Your task to perform on an android device: Open ESPN.com Image 0: 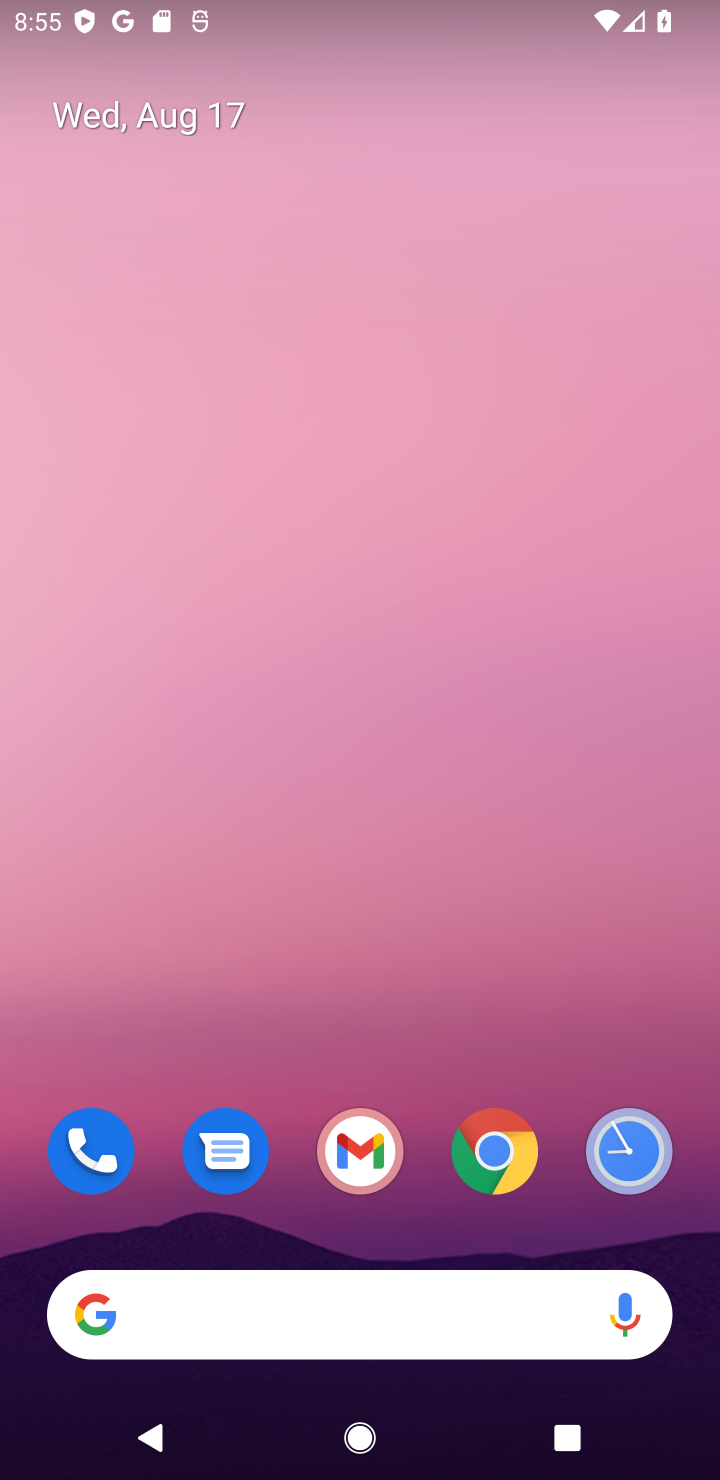
Step 0: click (482, 1149)
Your task to perform on an android device: Open ESPN.com Image 1: 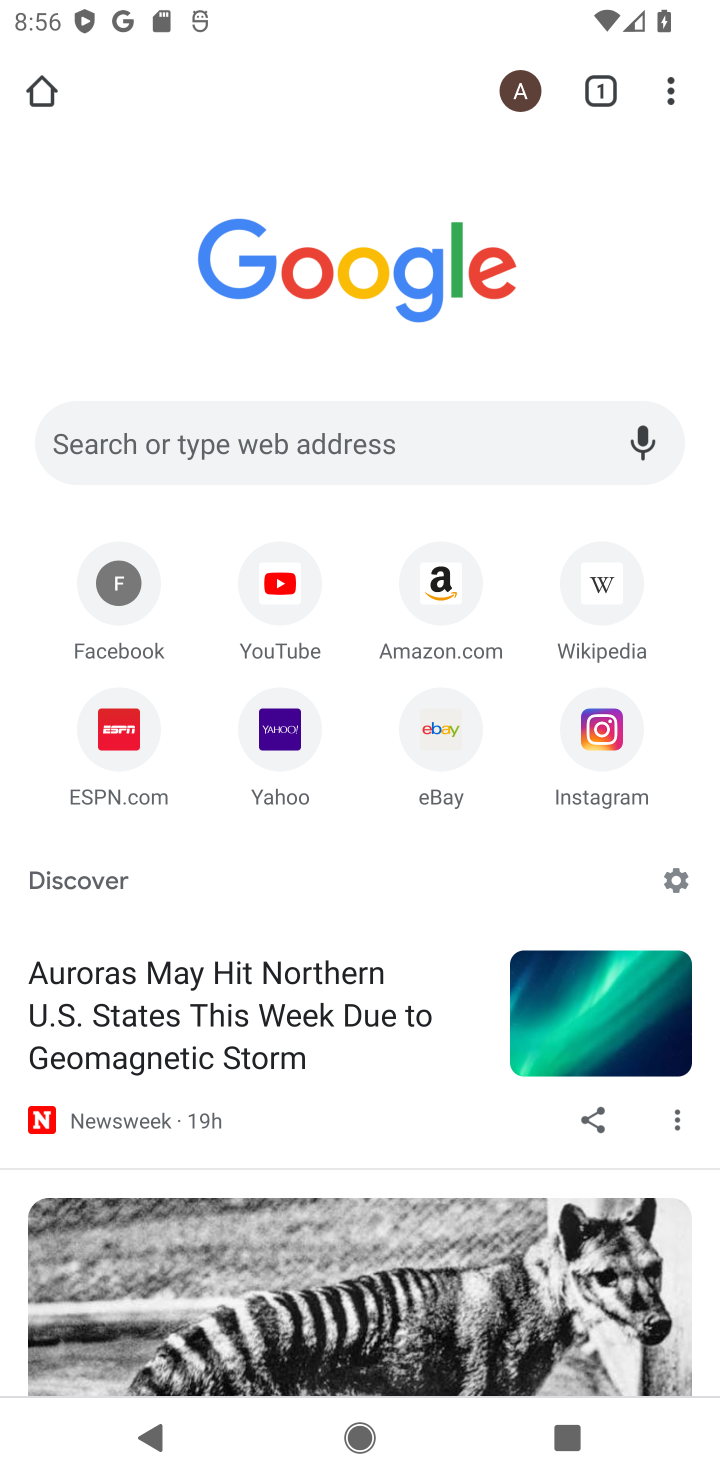
Step 1: click (111, 744)
Your task to perform on an android device: Open ESPN.com Image 2: 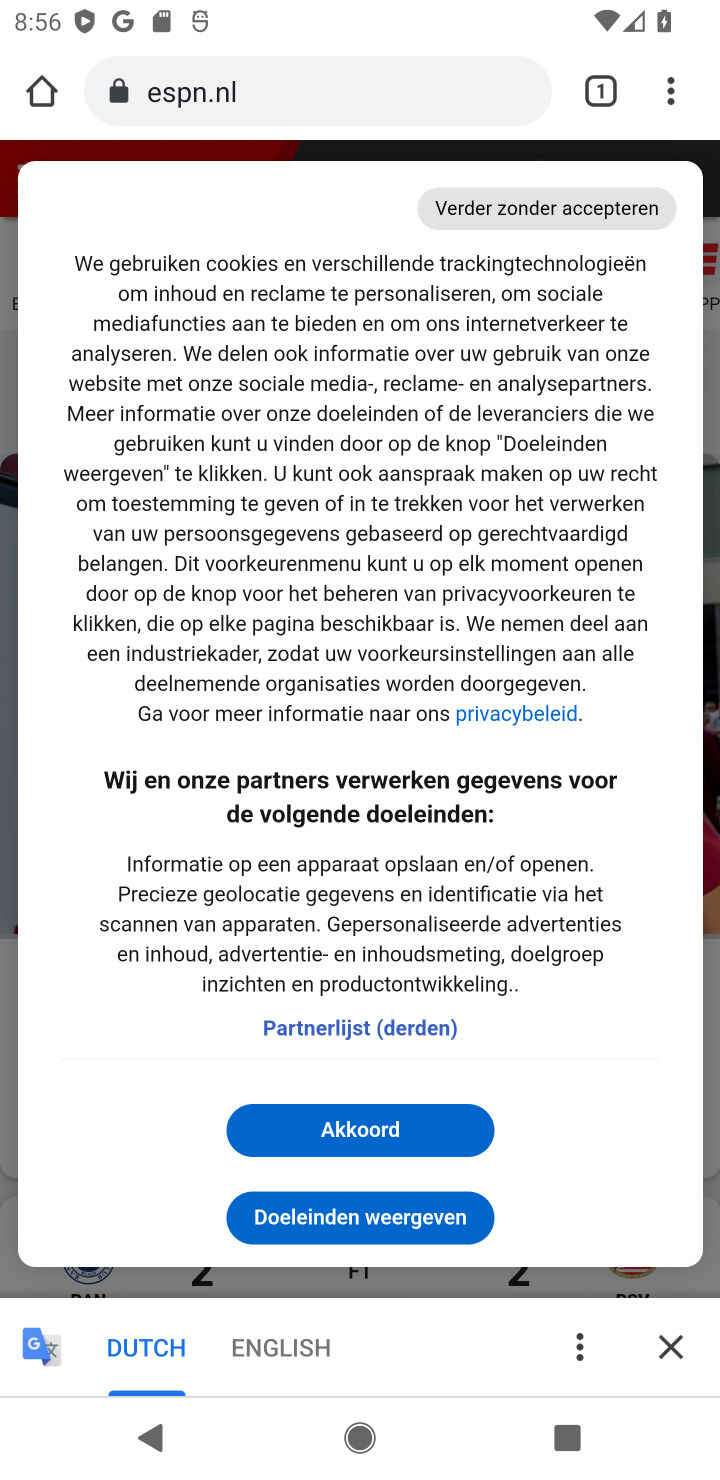
Step 2: task complete